Your task to perform on an android device: Open Google Chrome and open the bookmarks view Image 0: 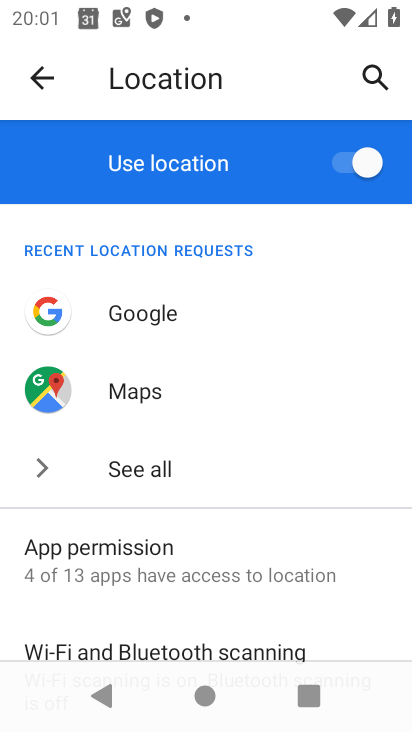
Step 0: press home button
Your task to perform on an android device: Open Google Chrome and open the bookmarks view Image 1: 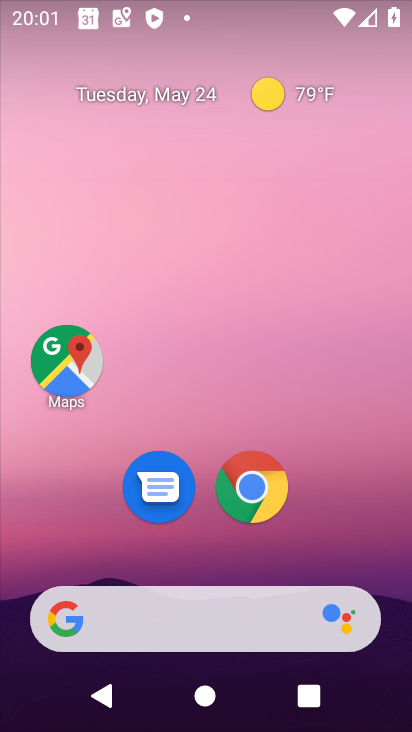
Step 1: click (253, 484)
Your task to perform on an android device: Open Google Chrome and open the bookmarks view Image 2: 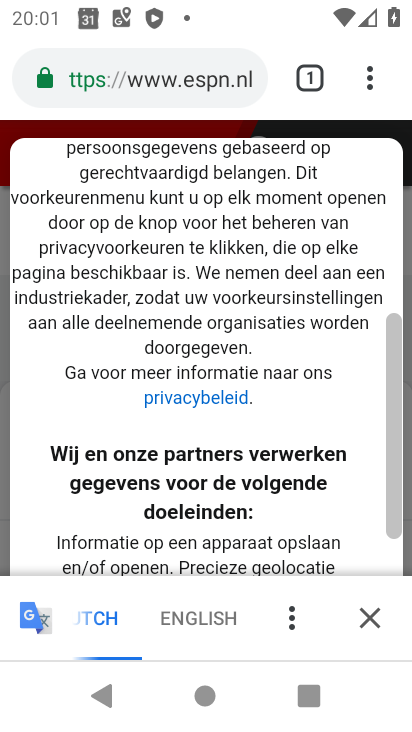
Step 2: click (372, 79)
Your task to perform on an android device: Open Google Chrome and open the bookmarks view Image 3: 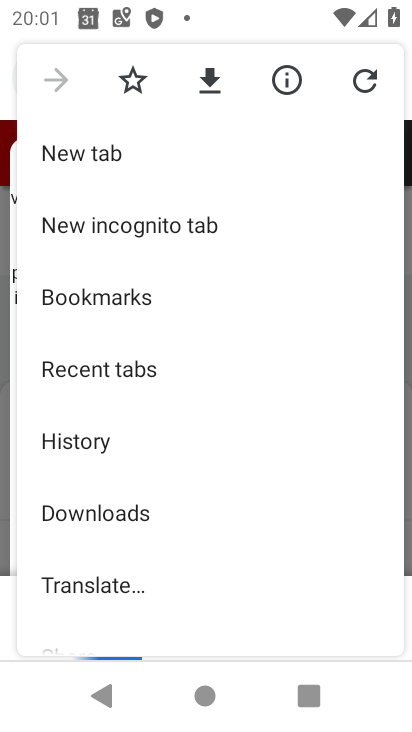
Step 3: click (136, 297)
Your task to perform on an android device: Open Google Chrome and open the bookmarks view Image 4: 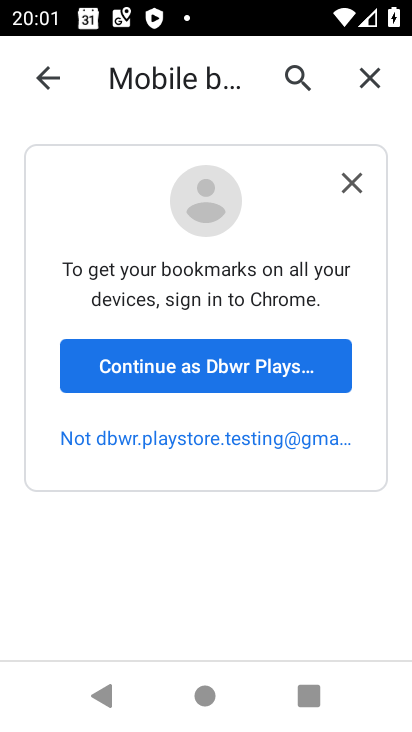
Step 4: click (348, 186)
Your task to perform on an android device: Open Google Chrome and open the bookmarks view Image 5: 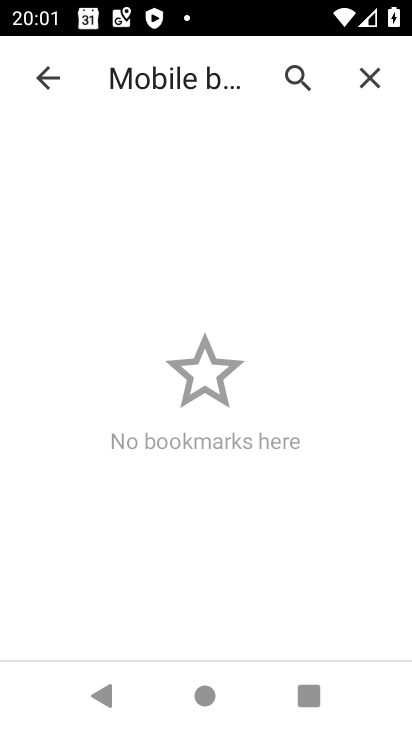
Step 5: task complete